Your task to perform on an android device: delete location history Image 0: 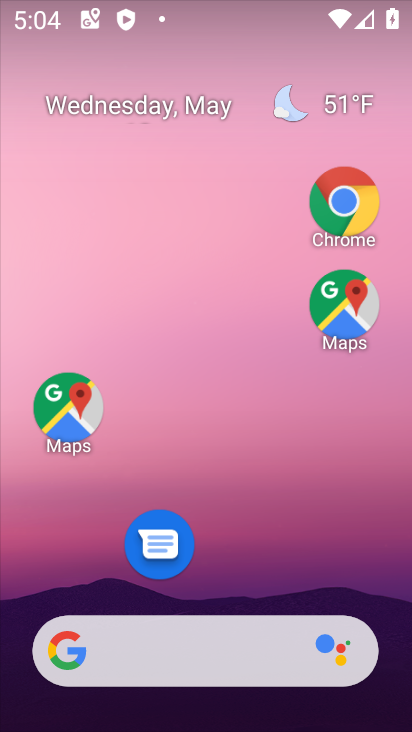
Step 0: click (337, 318)
Your task to perform on an android device: delete location history Image 1: 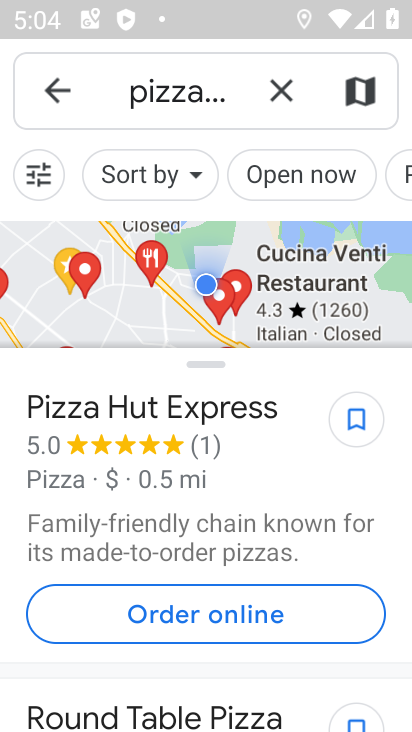
Step 1: click (57, 93)
Your task to perform on an android device: delete location history Image 2: 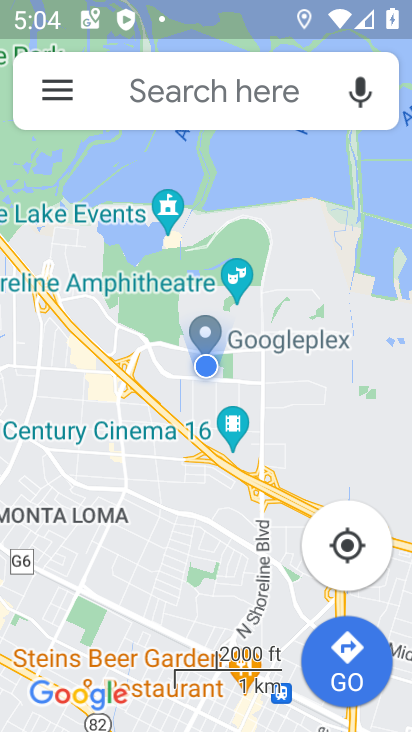
Step 2: click (64, 97)
Your task to perform on an android device: delete location history Image 3: 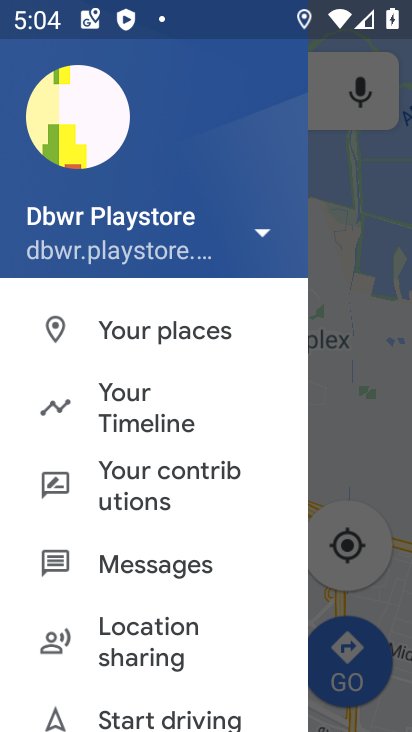
Step 3: drag from (151, 633) to (213, 266)
Your task to perform on an android device: delete location history Image 4: 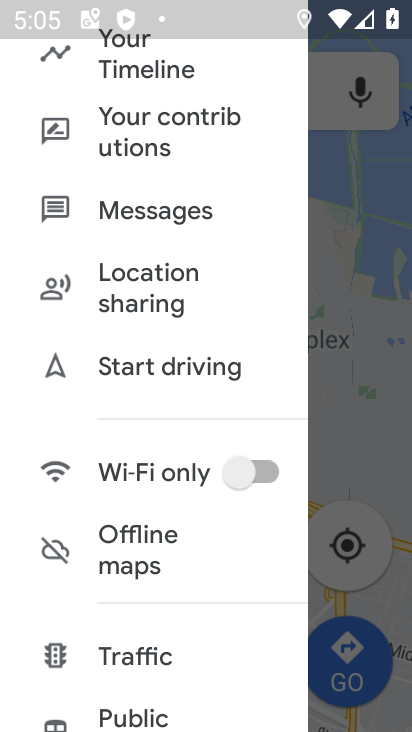
Step 4: drag from (142, 642) to (195, 425)
Your task to perform on an android device: delete location history Image 5: 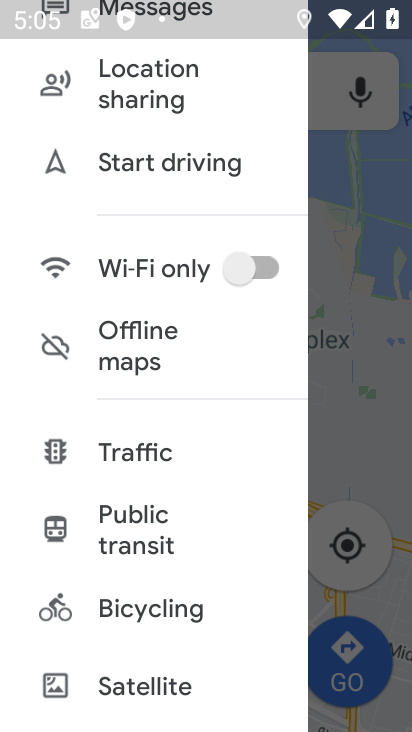
Step 5: click (164, 427)
Your task to perform on an android device: delete location history Image 6: 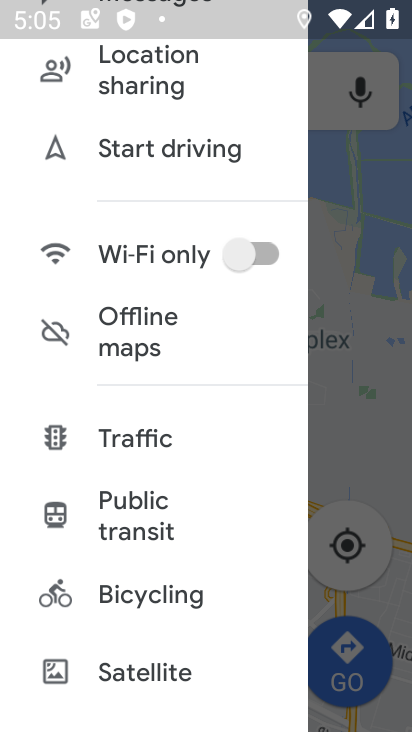
Step 6: drag from (134, 568) to (156, 243)
Your task to perform on an android device: delete location history Image 7: 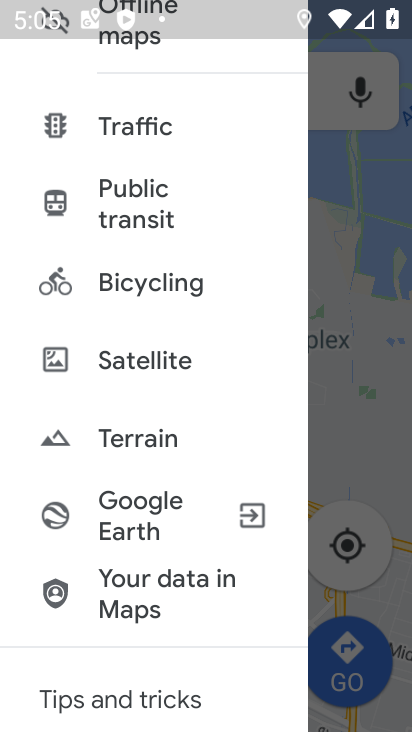
Step 7: drag from (165, 393) to (186, 568)
Your task to perform on an android device: delete location history Image 8: 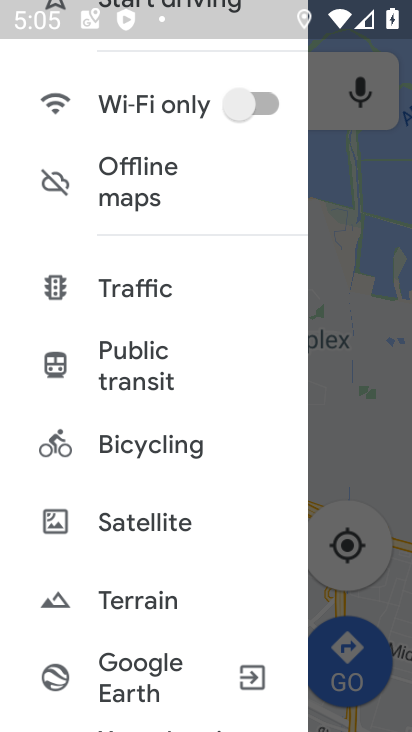
Step 8: drag from (157, 355) to (165, 586)
Your task to perform on an android device: delete location history Image 9: 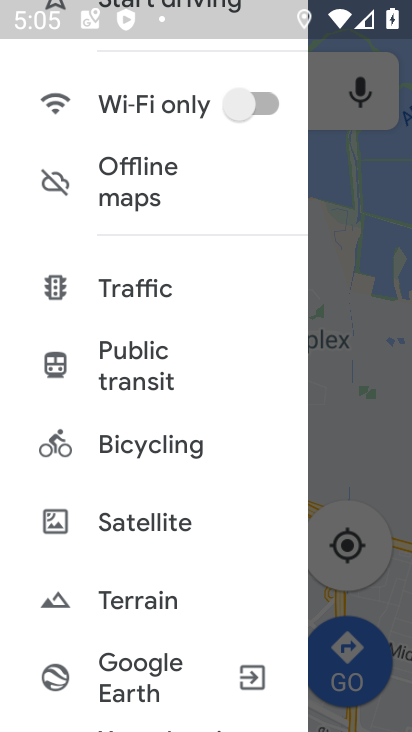
Step 9: drag from (166, 394) to (192, 685)
Your task to perform on an android device: delete location history Image 10: 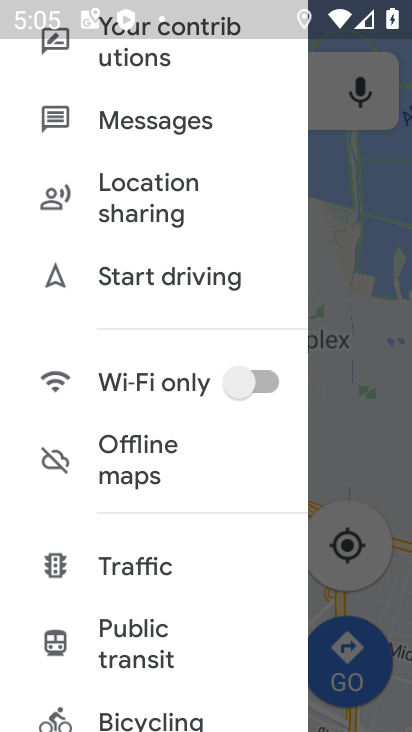
Step 10: drag from (126, 370) to (120, 589)
Your task to perform on an android device: delete location history Image 11: 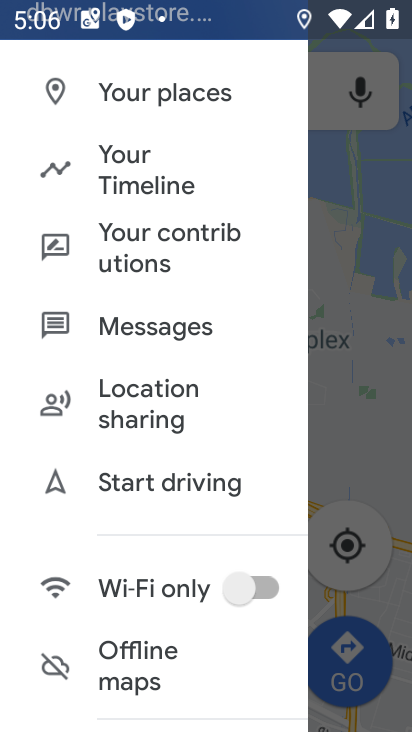
Step 11: drag from (159, 389) to (143, 658)
Your task to perform on an android device: delete location history Image 12: 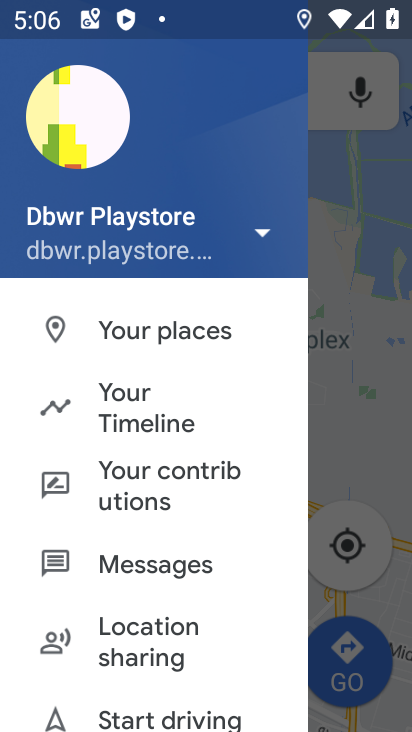
Step 12: click (142, 411)
Your task to perform on an android device: delete location history Image 13: 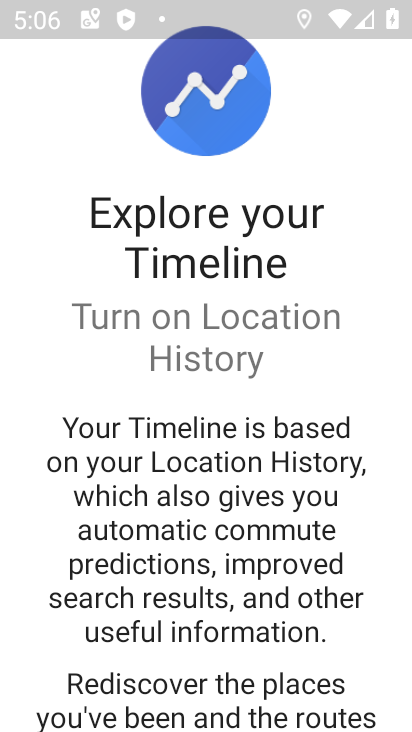
Step 13: drag from (200, 576) to (250, 335)
Your task to perform on an android device: delete location history Image 14: 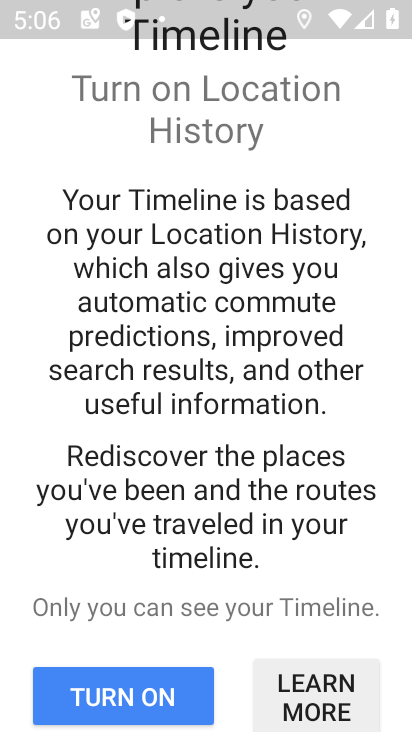
Step 14: drag from (246, 626) to (307, 342)
Your task to perform on an android device: delete location history Image 15: 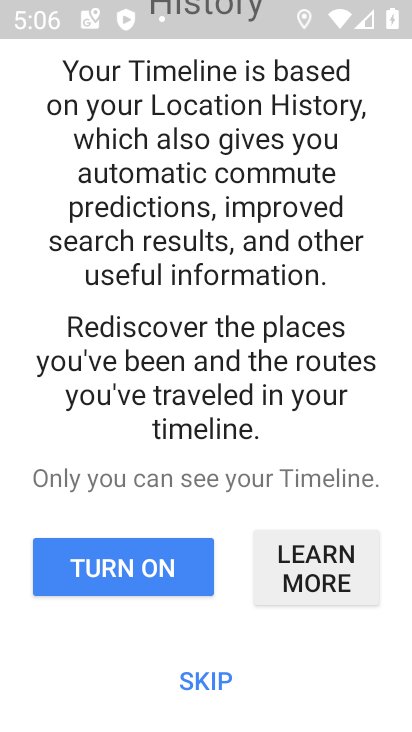
Step 15: click (199, 681)
Your task to perform on an android device: delete location history Image 16: 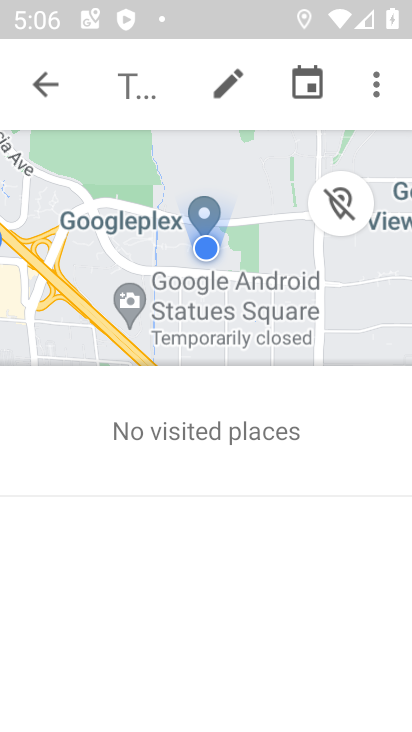
Step 16: click (365, 87)
Your task to perform on an android device: delete location history Image 17: 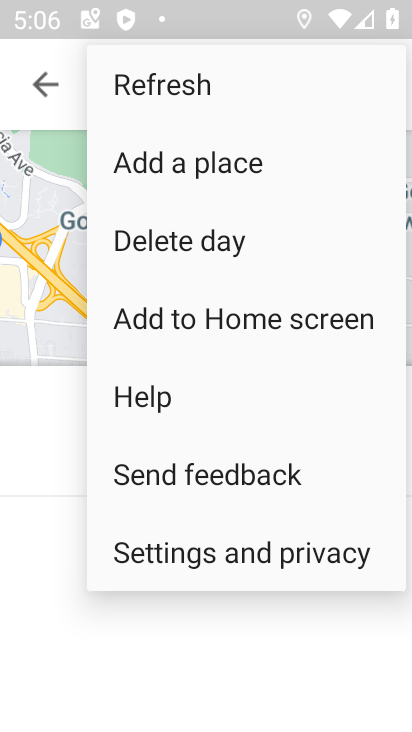
Step 17: click (249, 560)
Your task to perform on an android device: delete location history Image 18: 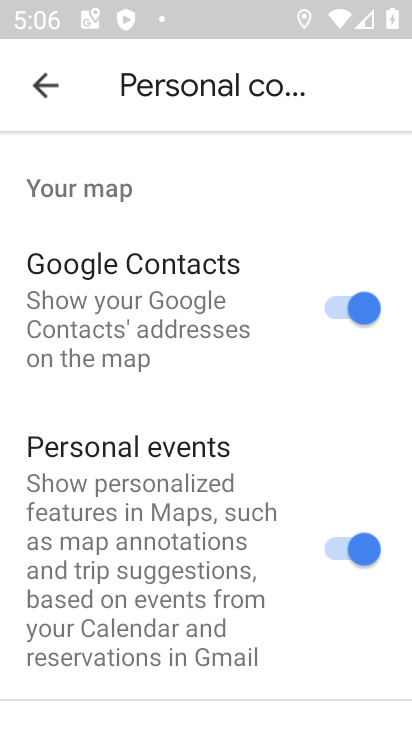
Step 18: drag from (232, 639) to (261, 334)
Your task to perform on an android device: delete location history Image 19: 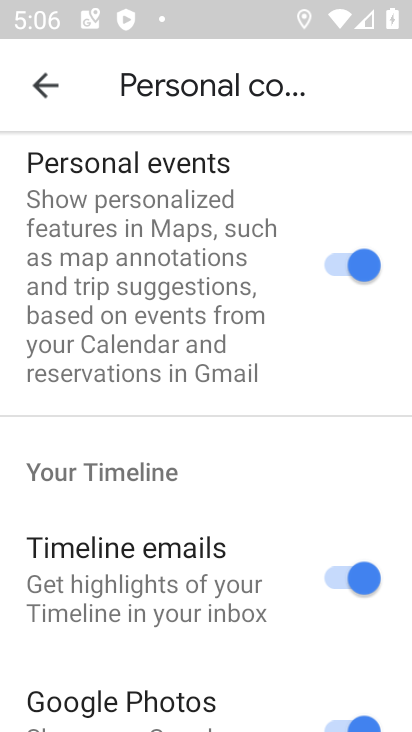
Step 19: drag from (185, 586) to (236, 304)
Your task to perform on an android device: delete location history Image 20: 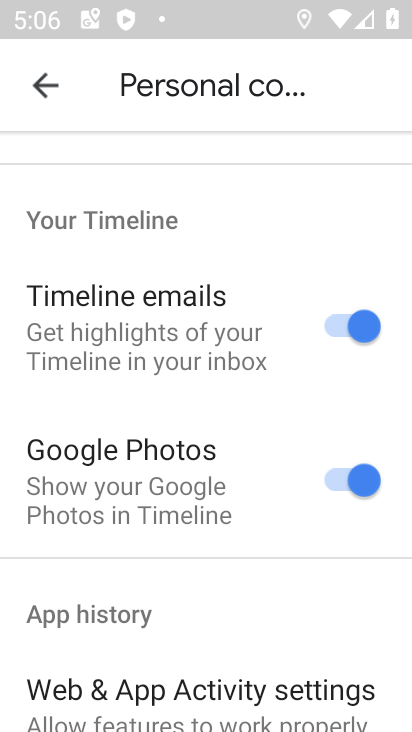
Step 20: drag from (195, 422) to (214, 325)
Your task to perform on an android device: delete location history Image 21: 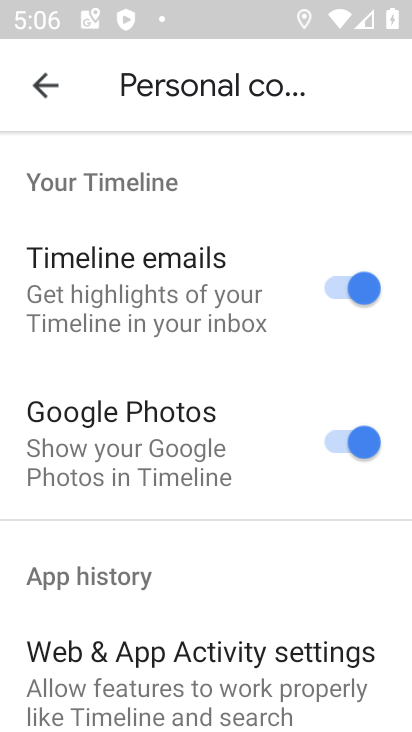
Step 21: drag from (253, 216) to (228, 630)
Your task to perform on an android device: delete location history Image 22: 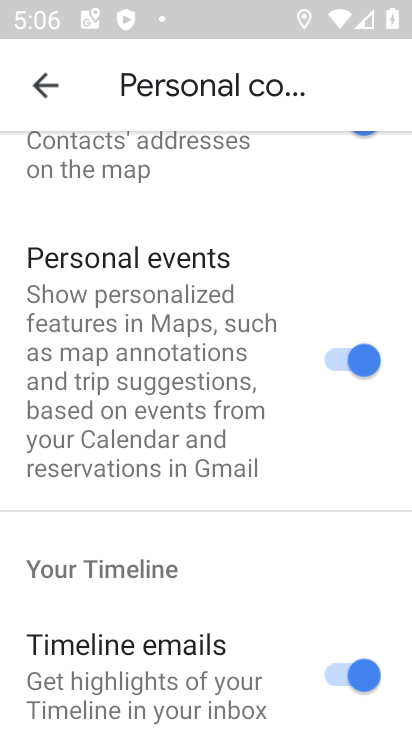
Step 22: drag from (247, 364) to (242, 626)
Your task to perform on an android device: delete location history Image 23: 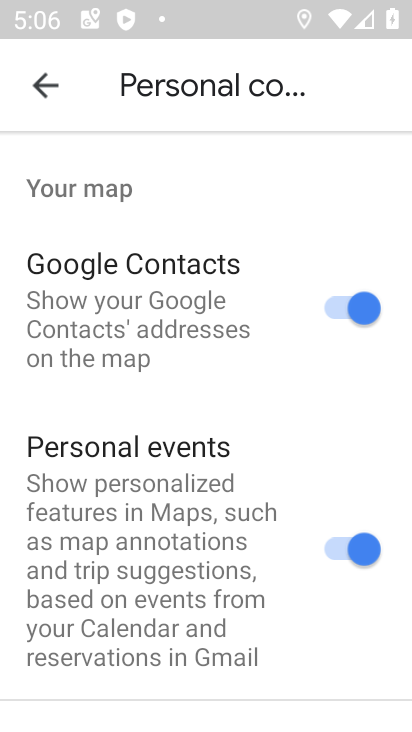
Step 23: click (51, 96)
Your task to perform on an android device: delete location history Image 24: 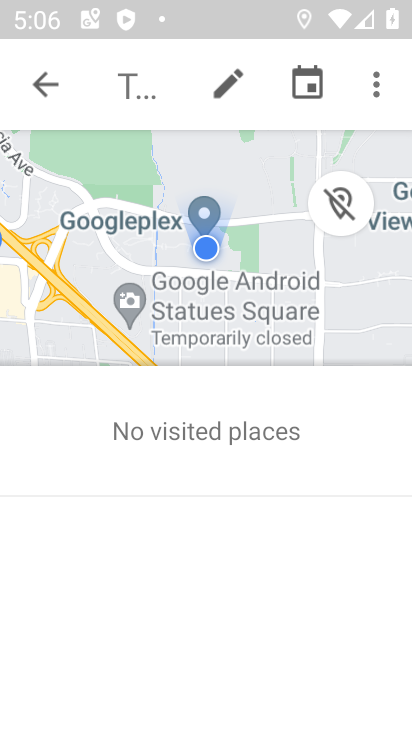
Step 24: click (371, 83)
Your task to perform on an android device: delete location history Image 25: 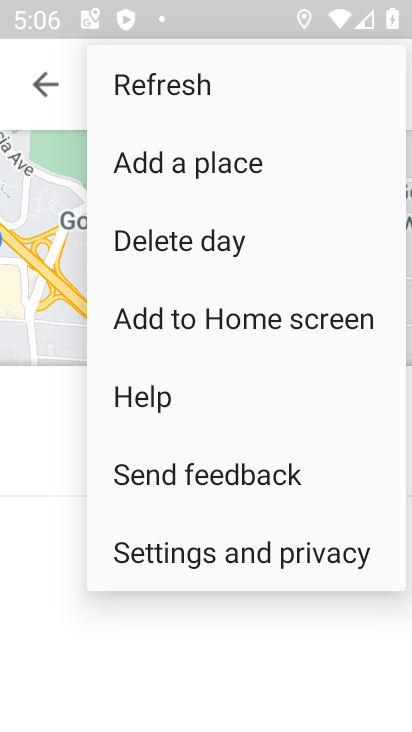
Step 25: click (224, 565)
Your task to perform on an android device: delete location history Image 26: 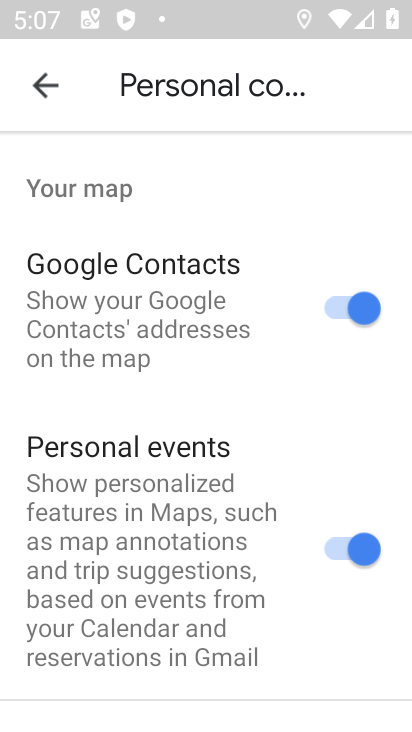
Step 26: drag from (184, 661) to (251, 289)
Your task to perform on an android device: delete location history Image 27: 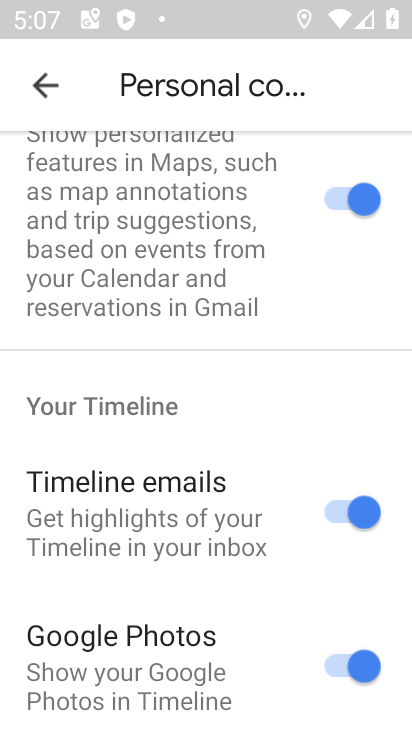
Step 27: drag from (169, 661) to (267, 211)
Your task to perform on an android device: delete location history Image 28: 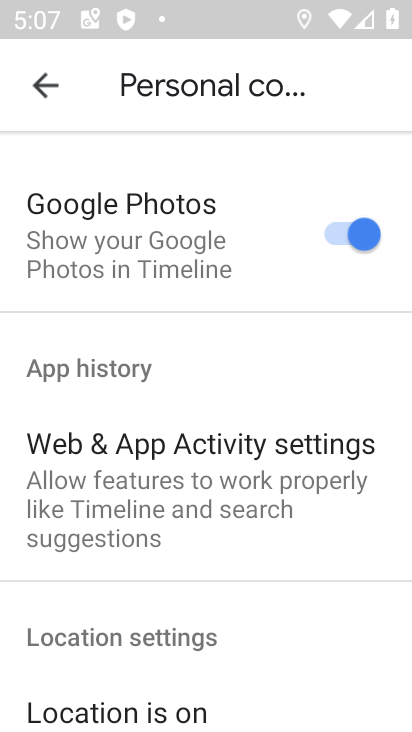
Step 28: drag from (200, 596) to (233, 343)
Your task to perform on an android device: delete location history Image 29: 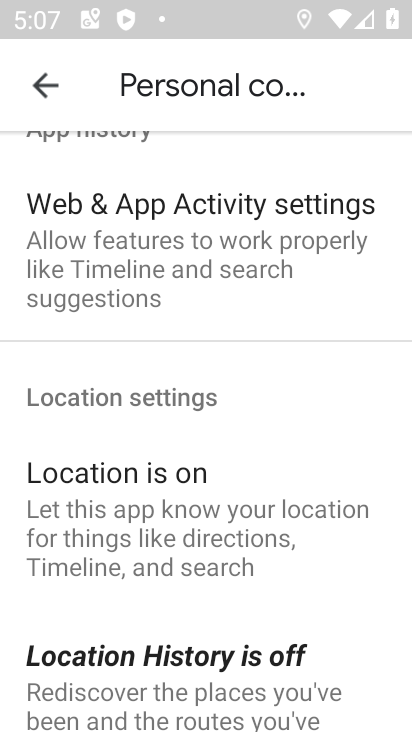
Step 29: drag from (203, 652) to (295, 281)
Your task to perform on an android device: delete location history Image 30: 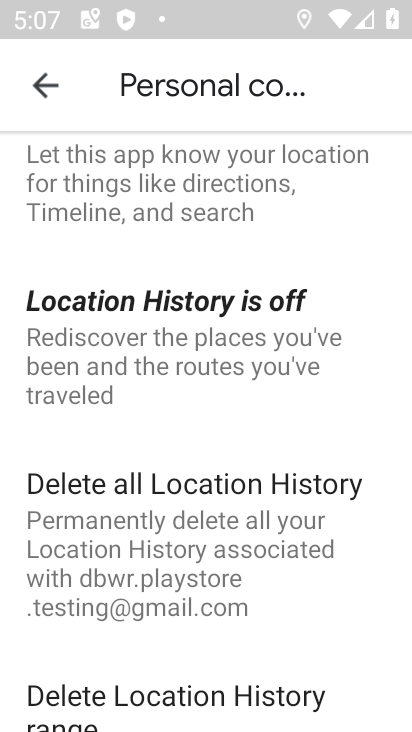
Step 30: drag from (220, 629) to (263, 358)
Your task to perform on an android device: delete location history Image 31: 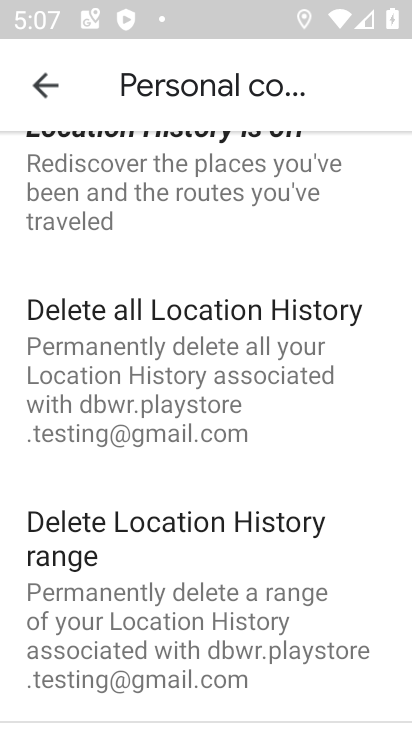
Step 31: click (192, 391)
Your task to perform on an android device: delete location history Image 32: 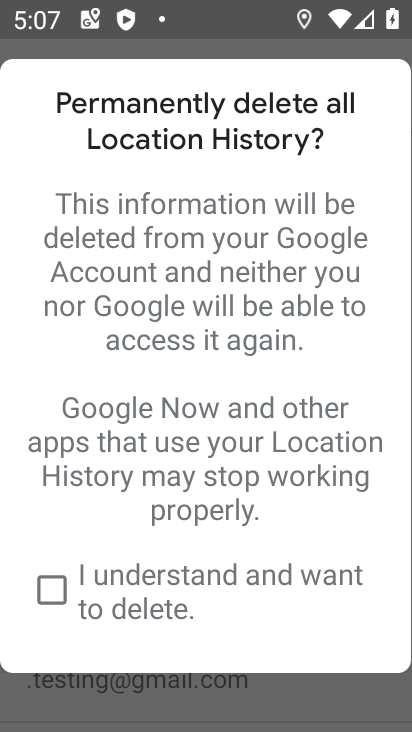
Step 32: click (52, 588)
Your task to perform on an android device: delete location history Image 33: 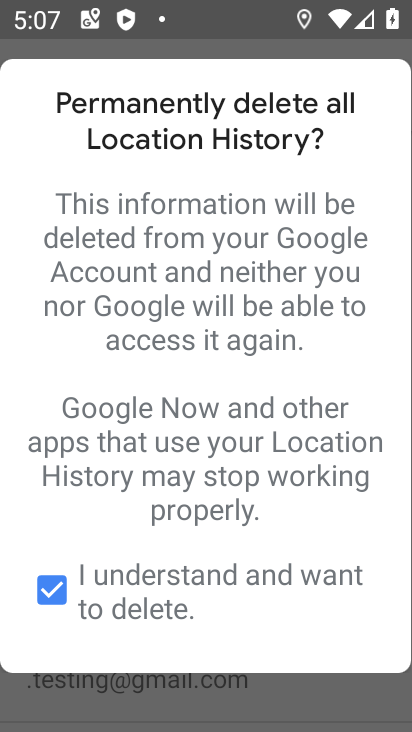
Step 33: task complete